Your task to perform on an android device: change the clock style Image 0: 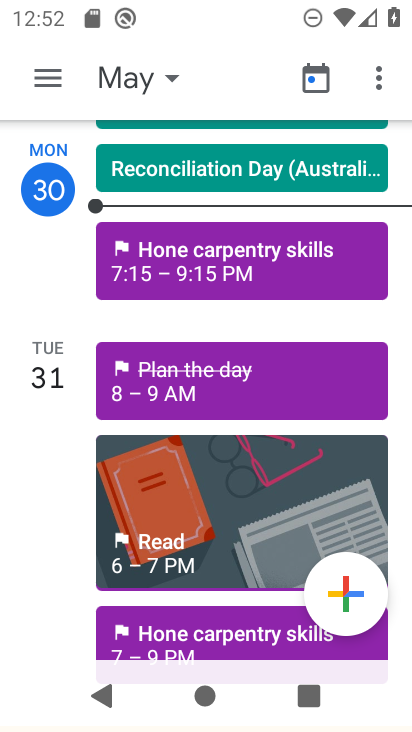
Step 0: press home button
Your task to perform on an android device: change the clock style Image 1: 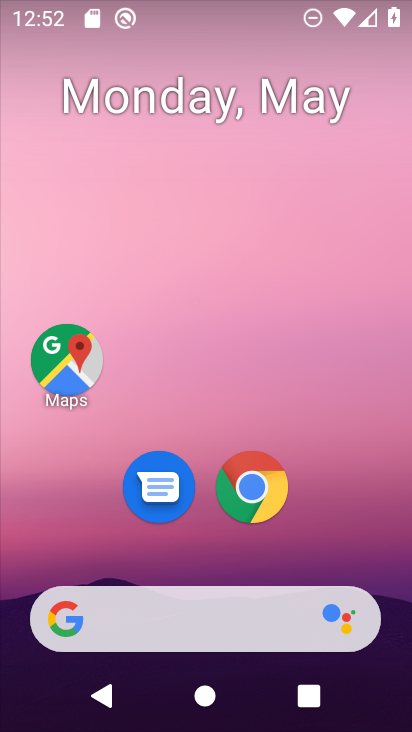
Step 1: drag from (346, 545) to (244, 69)
Your task to perform on an android device: change the clock style Image 2: 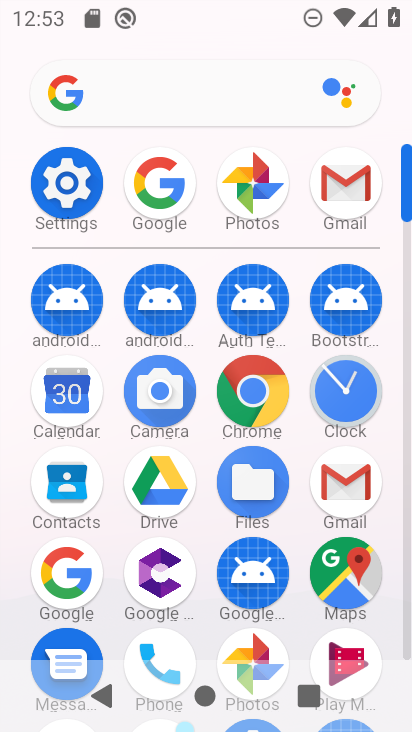
Step 2: click (345, 392)
Your task to perform on an android device: change the clock style Image 3: 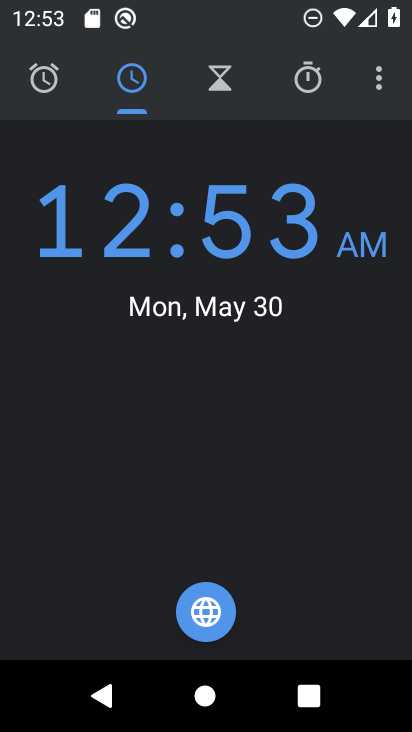
Step 3: click (381, 81)
Your task to perform on an android device: change the clock style Image 4: 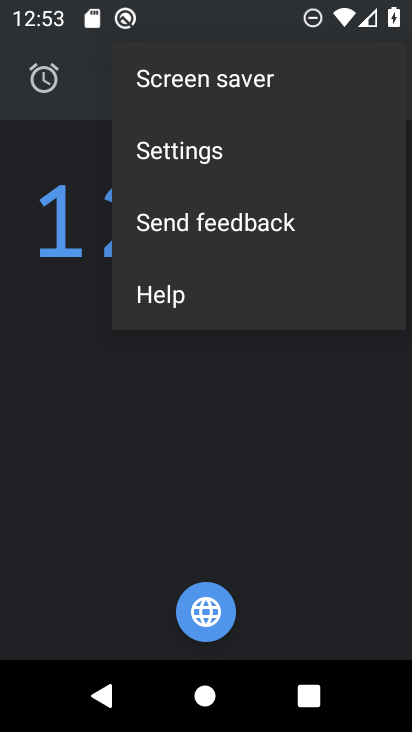
Step 4: click (203, 150)
Your task to perform on an android device: change the clock style Image 5: 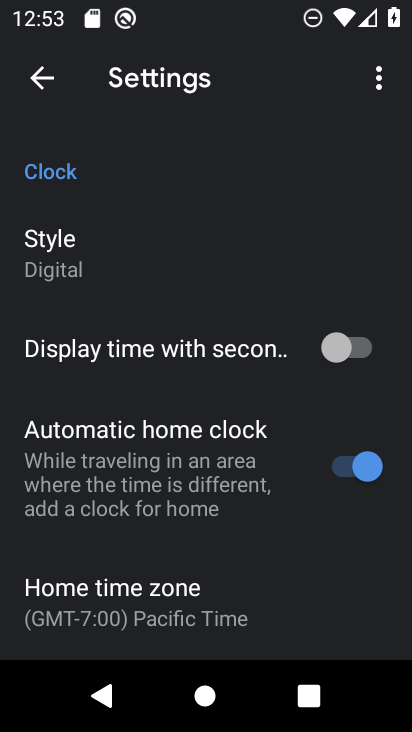
Step 5: click (115, 263)
Your task to perform on an android device: change the clock style Image 6: 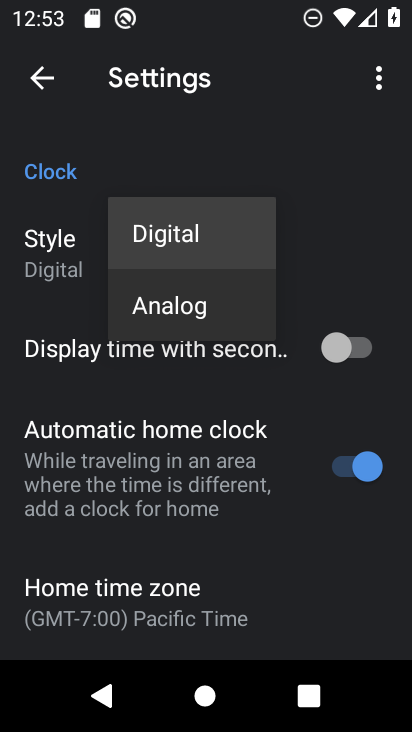
Step 6: click (157, 302)
Your task to perform on an android device: change the clock style Image 7: 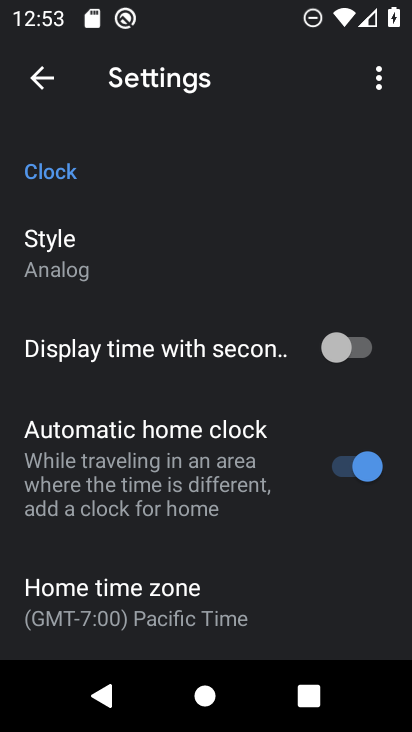
Step 7: task complete